Your task to perform on an android device: Open Chrome and go to settings Image 0: 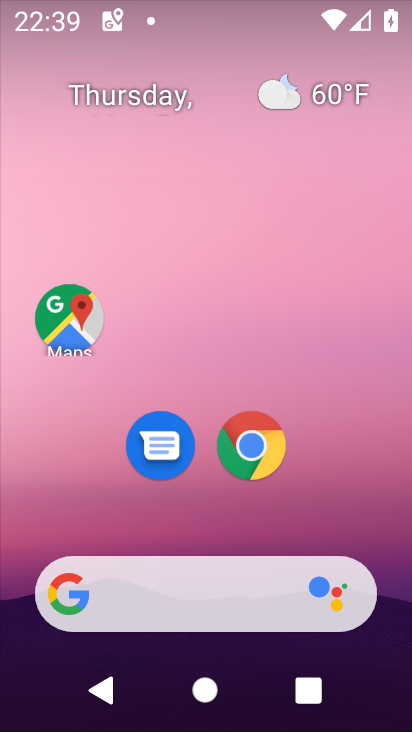
Step 0: click (263, 448)
Your task to perform on an android device: Open Chrome and go to settings Image 1: 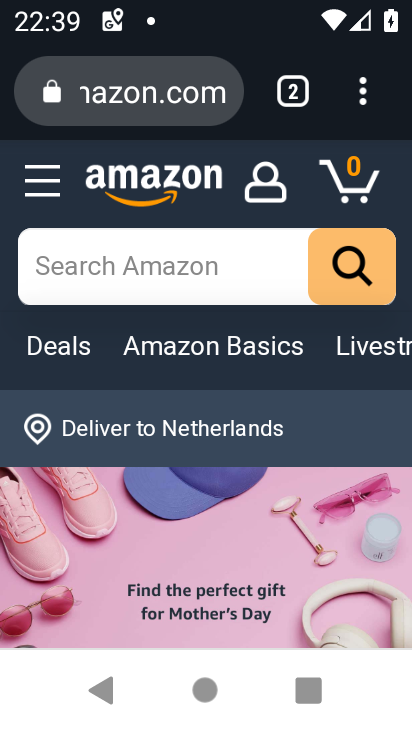
Step 1: task complete